Your task to perform on an android device: open a bookmark in the chrome app Image 0: 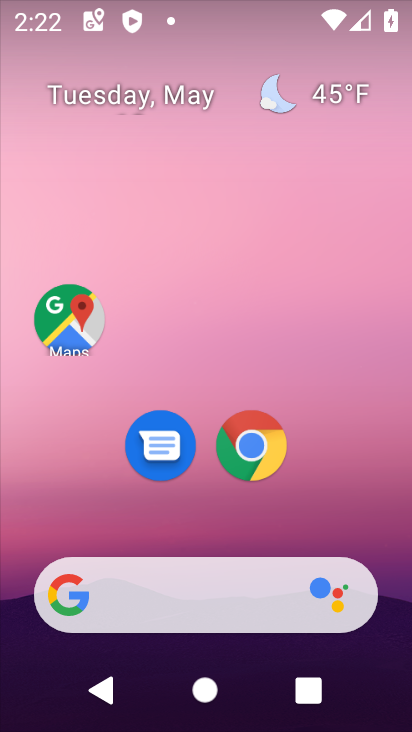
Step 0: click (269, 442)
Your task to perform on an android device: open a bookmark in the chrome app Image 1: 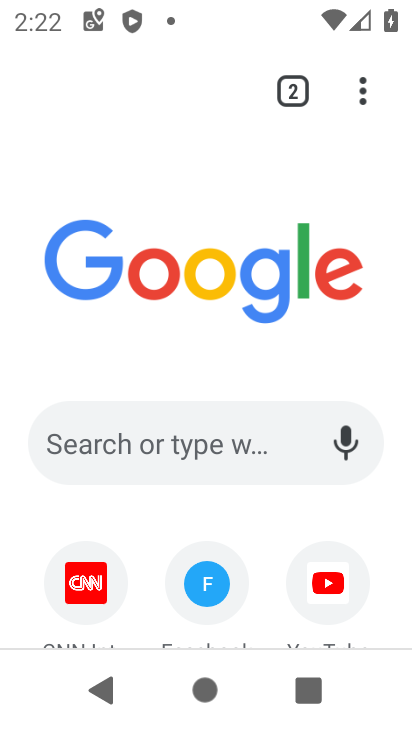
Step 1: drag from (365, 79) to (142, 349)
Your task to perform on an android device: open a bookmark in the chrome app Image 2: 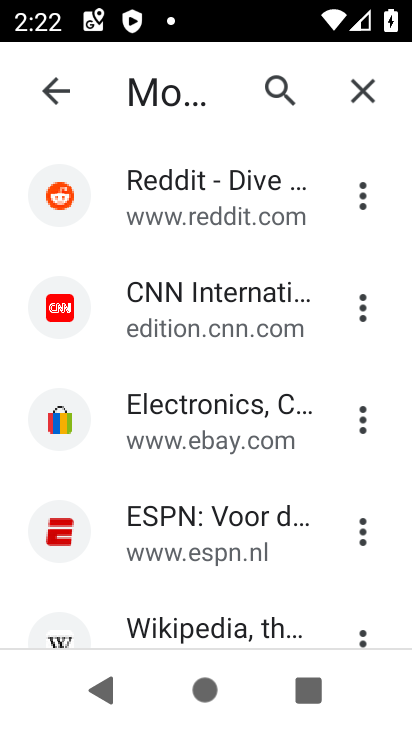
Step 2: click (181, 200)
Your task to perform on an android device: open a bookmark in the chrome app Image 3: 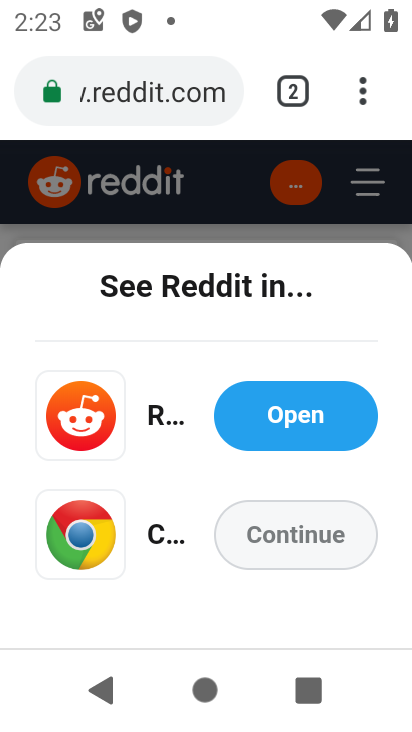
Step 3: task complete